Your task to perform on an android device: turn on the 12-hour format for clock Image 0: 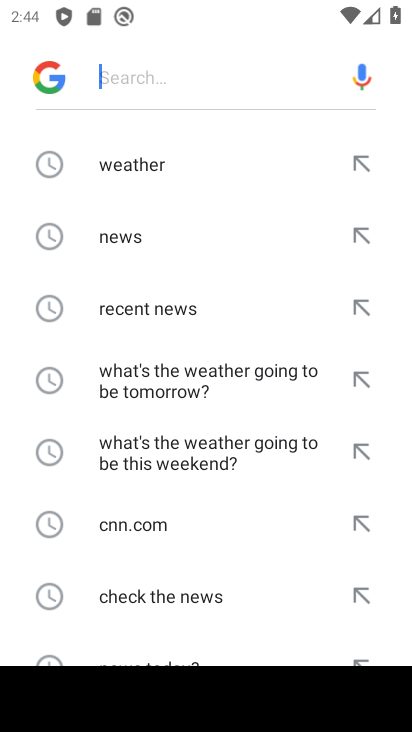
Step 0: press home button
Your task to perform on an android device: turn on the 12-hour format for clock Image 1: 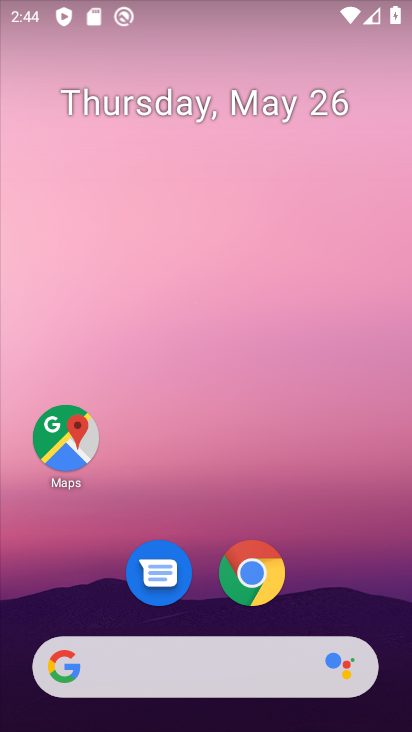
Step 1: drag from (164, 683) to (200, 100)
Your task to perform on an android device: turn on the 12-hour format for clock Image 2: 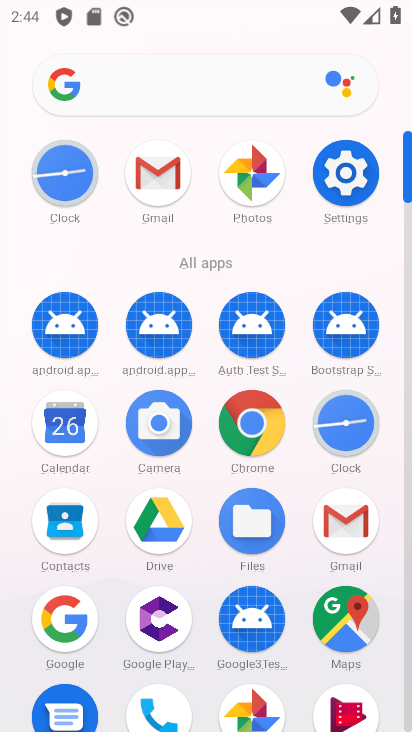
Step 2: click (332, 426)
Your task to perform on an android device: turn on the 12-hour format for clock Image 3: 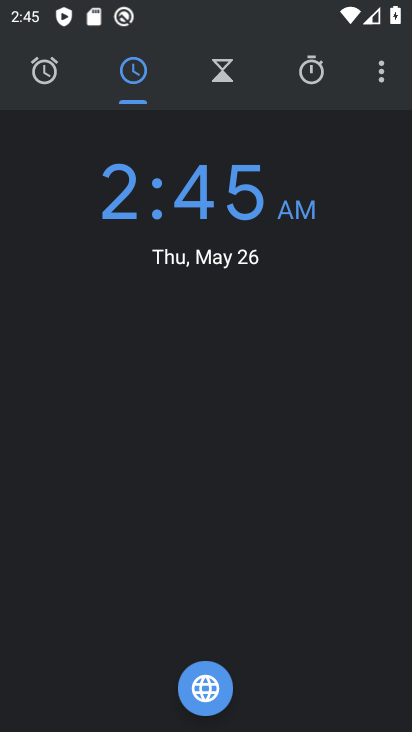
Step 3: press home button
Your task to perform on an android device: turn on the 12-hour format for clock Image 4: 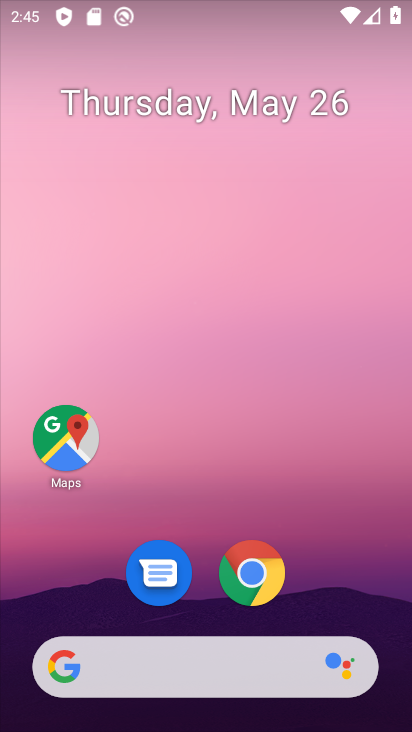
Step 4: drag from (223, 635) to (243, 79)
Your task to perform on an android device: turn on the 12-hour format for clock Image 5: 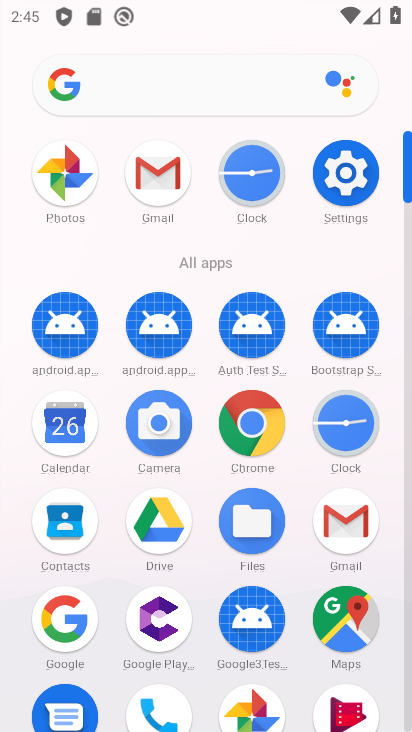
Step 5: drag from (199, 613) to (139, 6)
Your task to perform on an android device: turn on the 12-hour format for clock Image 6: 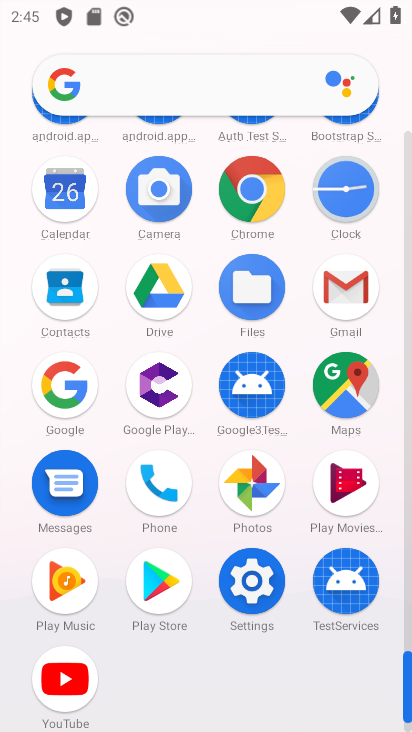
Step 6: click (239, 583)
Your task to perform on an android device: turn on the 12-hour format for clock Image 7: 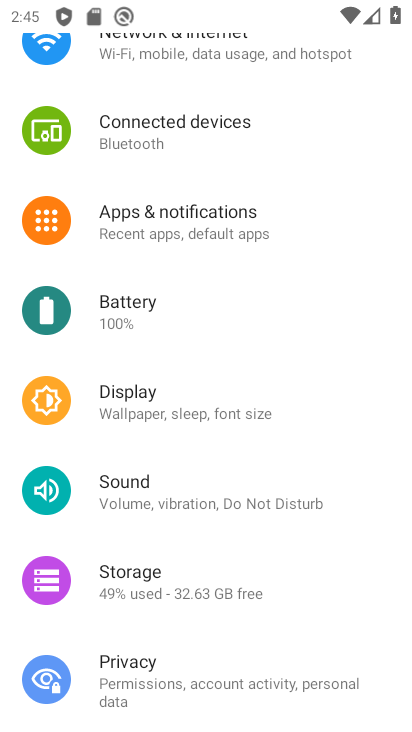
Step 7: drag from (196, 654) to (193, 93)
Your task to perform on an android device: turn on the 12-hour format for clock Image 8: 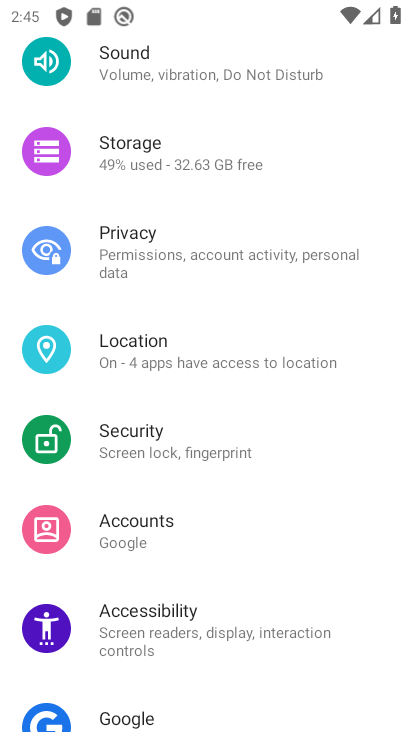
Step 8: drag from (127, 653) to (241, 144)
Your task to perform on an android device: turn on the 12-hour format for clock Image 9: 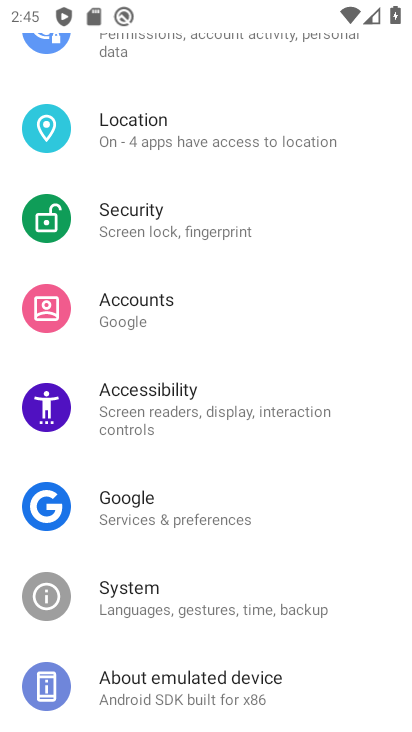
Step 9: click (160, 607)
Your task to perform on an android device: turn on the 12-hour format for clock Image 10: 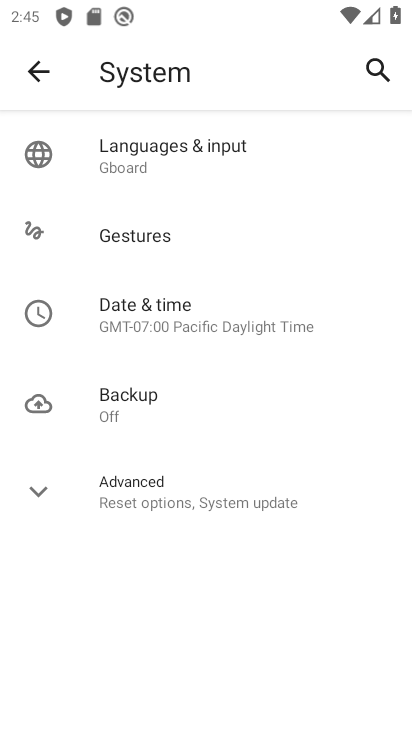
Step 10: click (131, 328)
Your task to perform on an android device: turn on the 12-hour format for clock Image 11: 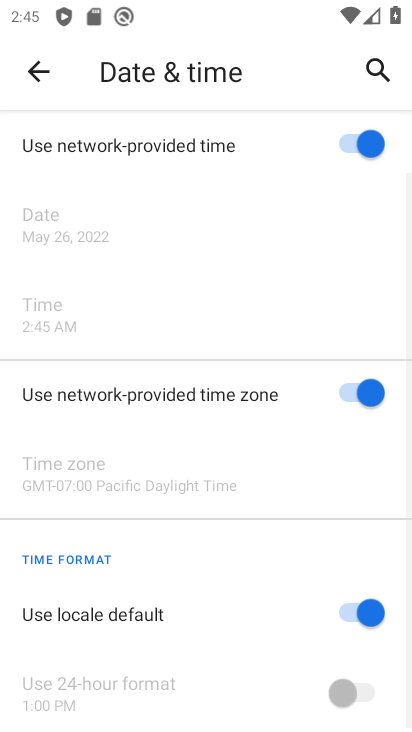
Step 11: task complete